Your task to perform on an android device: turn on notifications settings in the gmail app Image 0: 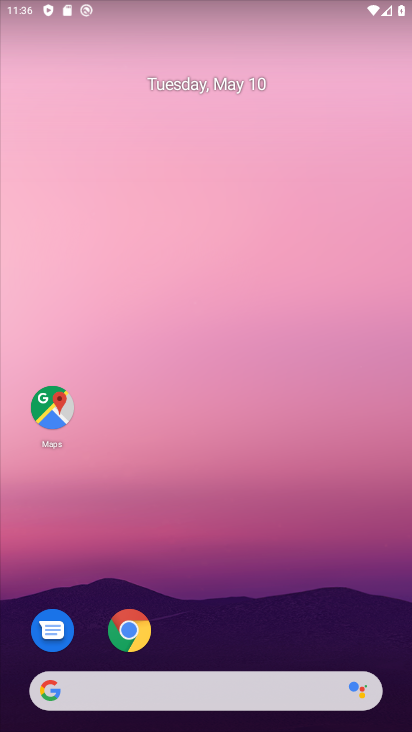
Step 0: drag from (322, 626) to (291, 131)
Your task to perform on an android device: turn on notifications settings in the gmail app Image 1: 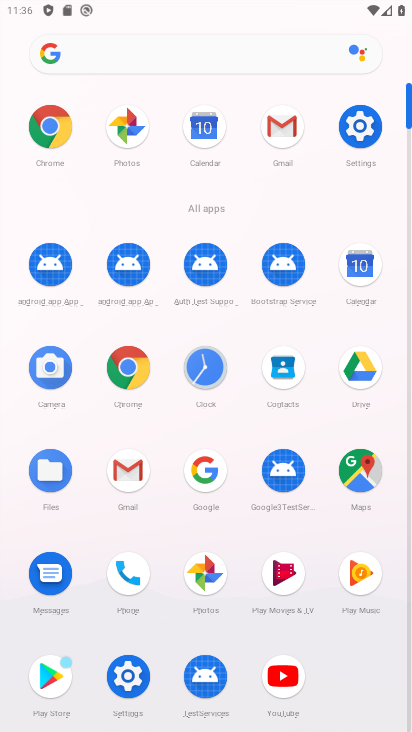
Step 1: click (280, 127)
Your task to perform on an android device: turn on notifications settings in the gmail app Image 2: 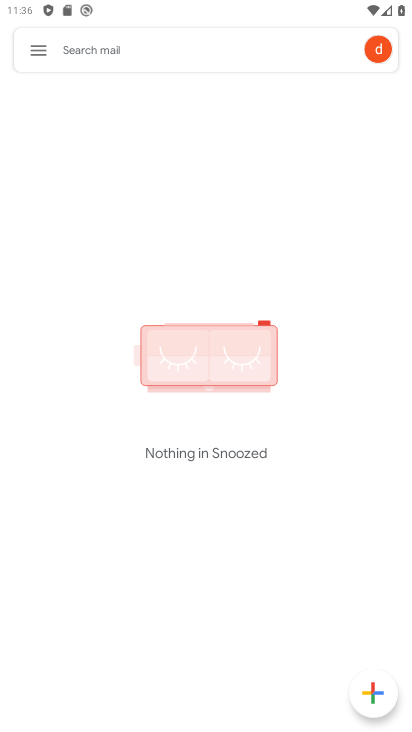
Step 2: click (40, 47)
Your task to perform on an android device: turn on notifications settings in the gmail app Image 3: 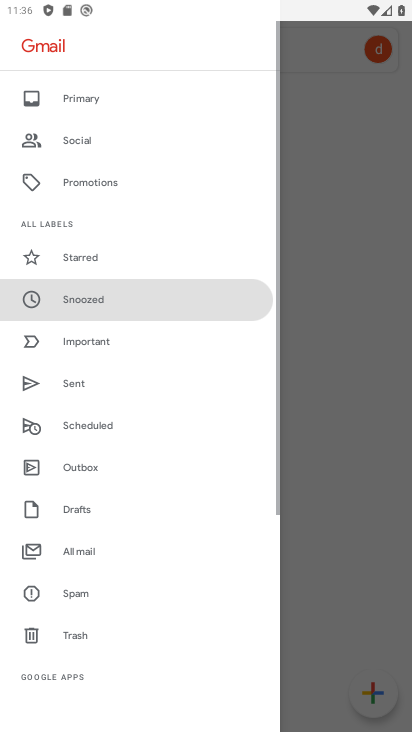
Step 3: drag from (126, 689) to (174, 282)
Your task to perform on an android device: turn on notifications settings in the gmail app Image 4: 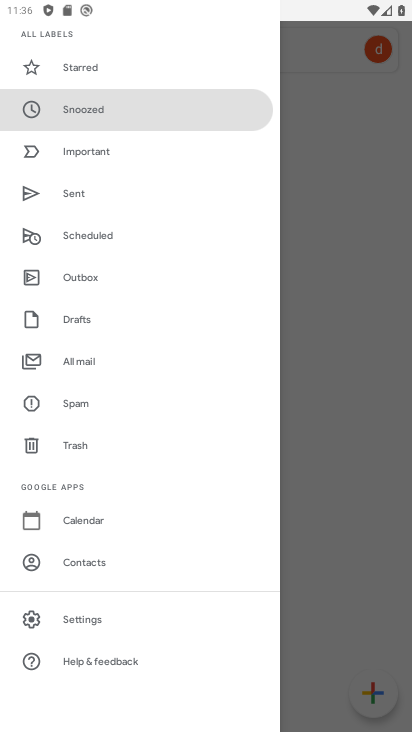
Step 4: click (77, 623)
Your task to perform on an android device: turn on notifications settings in the gmail app Image 5: 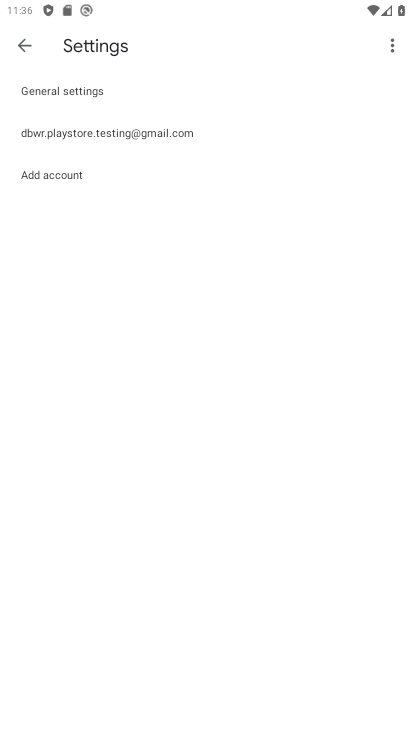
Step 5: click (172, 125)
Your task to perform on an android device: turn on notifications settings in the gmail app Image 6: 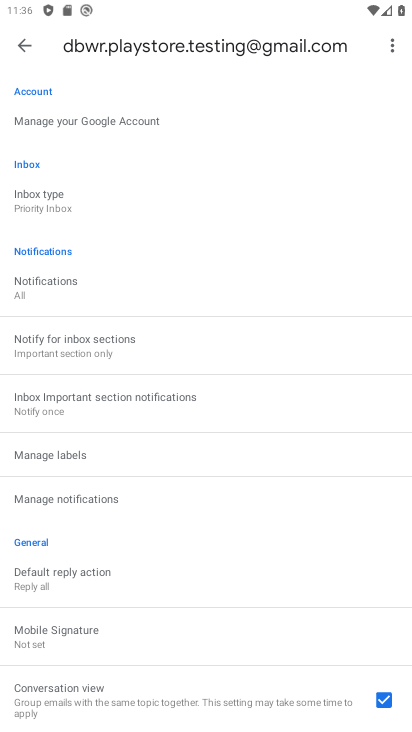
Step 6: click (94, 498)
Your task to perform on an android device: turn on notifications settings in the gmail app Image 7: 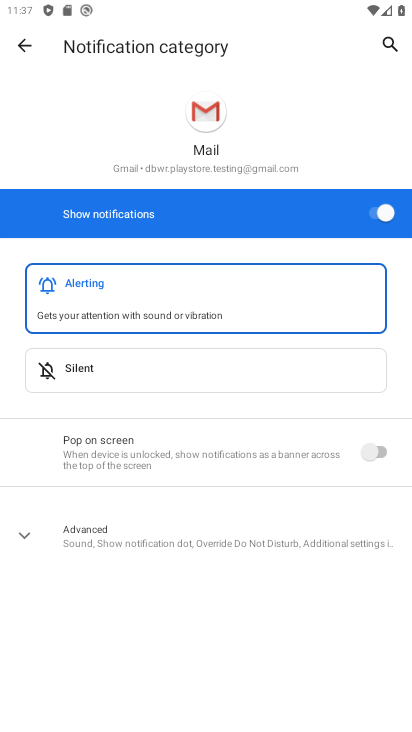
Step 7: task complete